Your task to perform on an android device: turn off location Image 0: 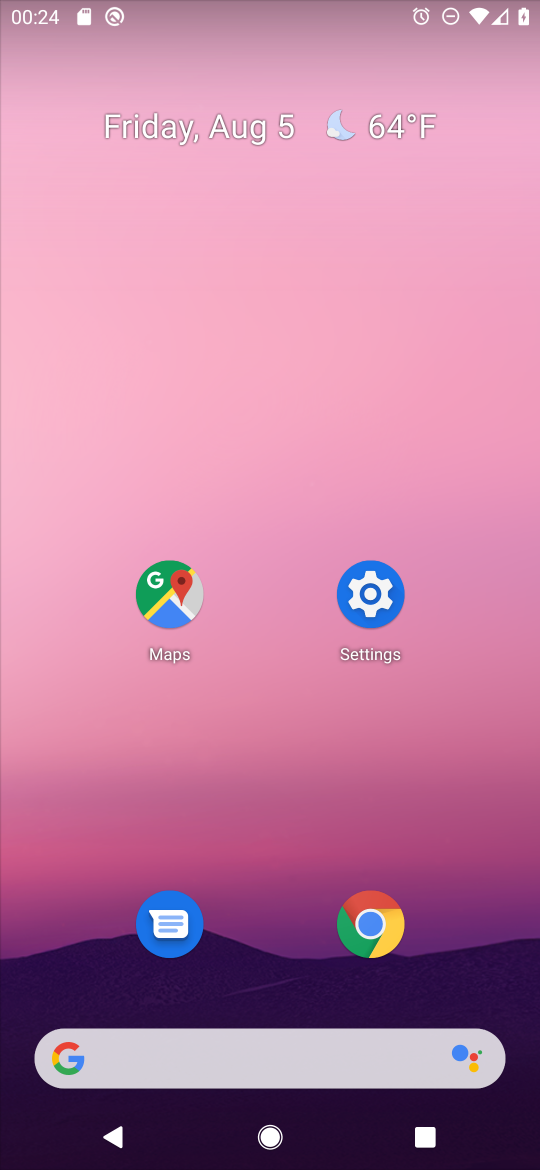
Step 0: click (375, 594)
Your task to perform on an android device: turn off location Image 1: 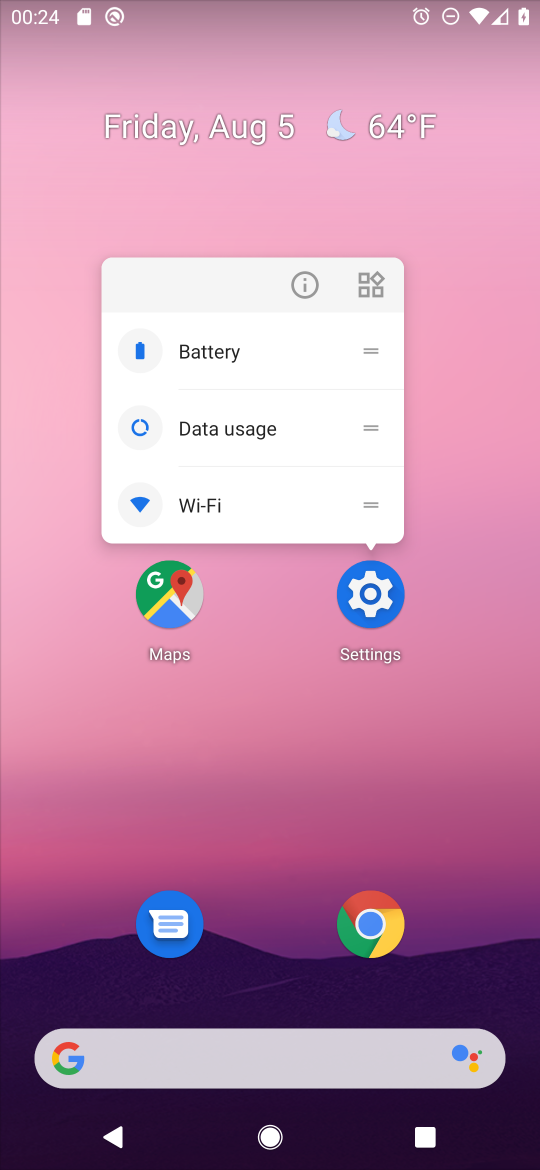
Step 1: click (375, 594)
Your task to perform on an android device: turn off location Image 2: 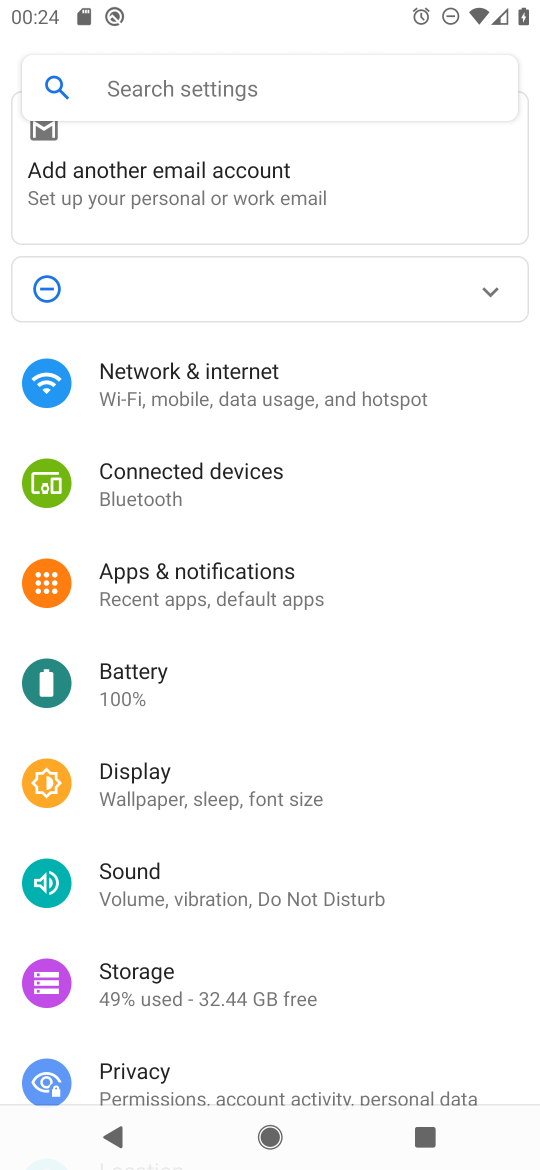
Step 2: drag from (246, 986) to (511, 375)
Your task to perform on an android device: turn off location Image 3: 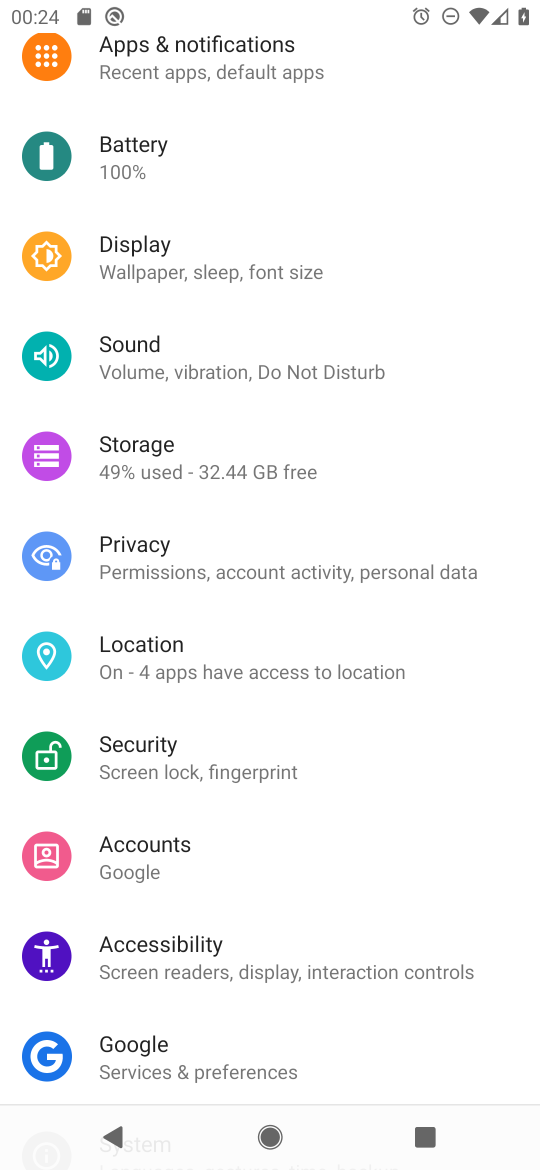
Step 3: click (201, 660)
Your task to perform on an android device: turn off location Image 4: 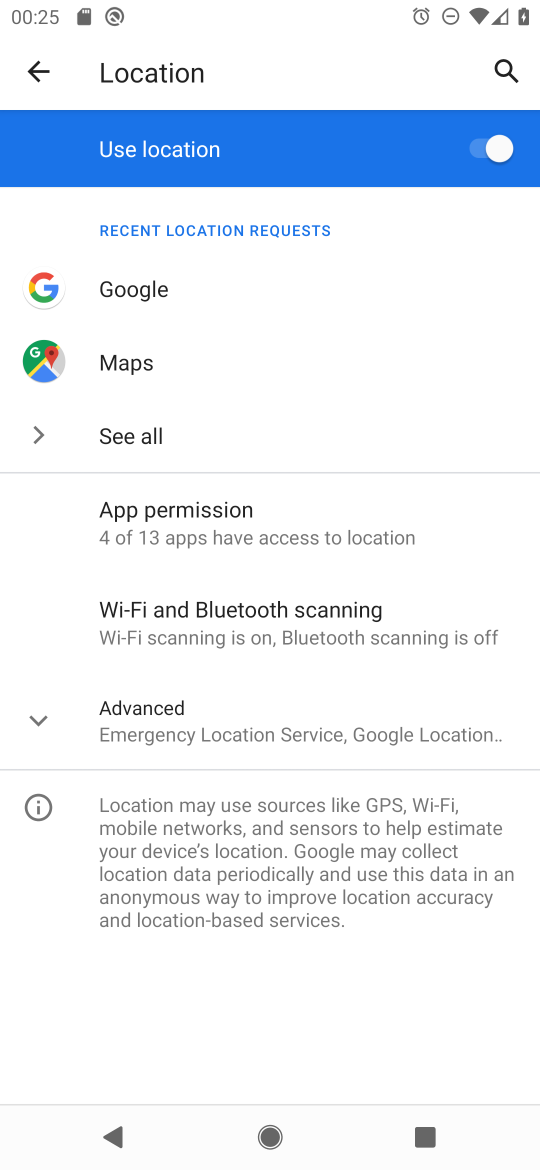
Step 4: click (478, 141)
Your task to perform on an android device: turn off location Image 5: 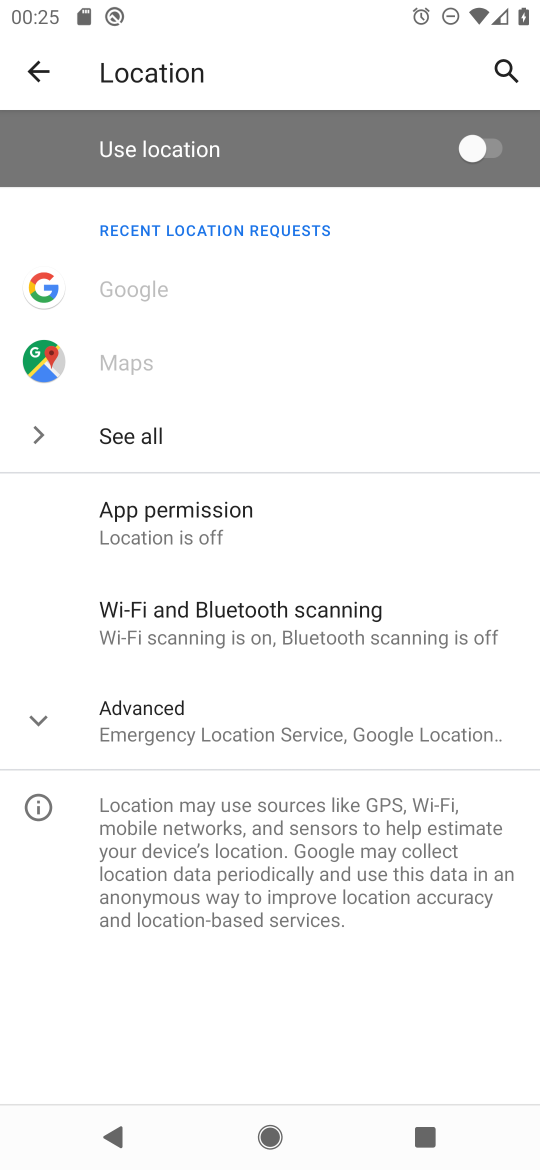
Step 5: task complete